Your task to perform on an android device: Go to Yahoo.com Image 0: 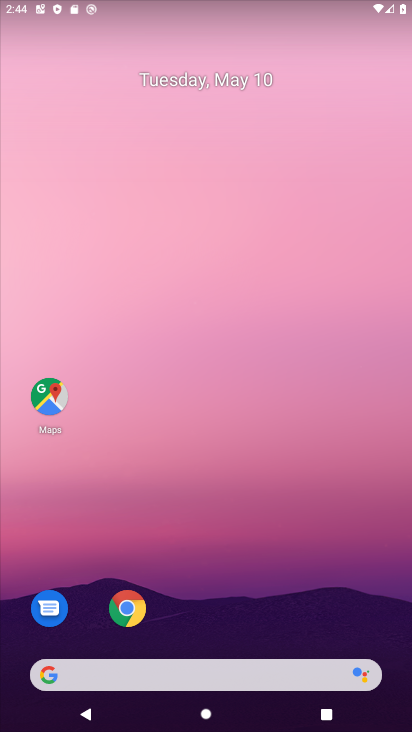
Step 0: drag from (218, 621) to (313, 1)
Your task to perform on an android device: Go to Yahoo.com Image 1: 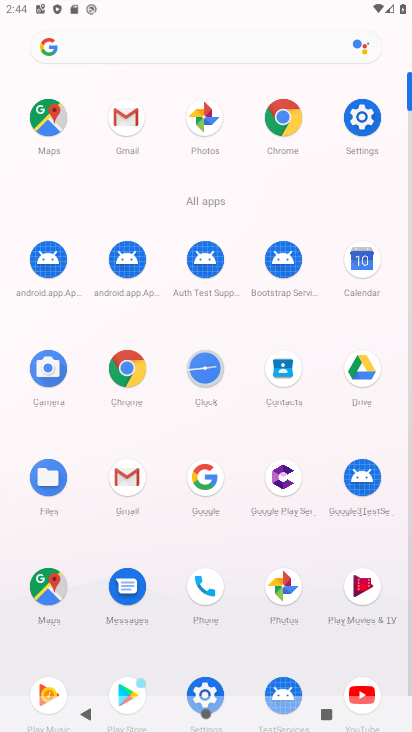
Step 1: click (297, 128)
Your task to perform on an android device: Go to Yahoo.com Image 2: 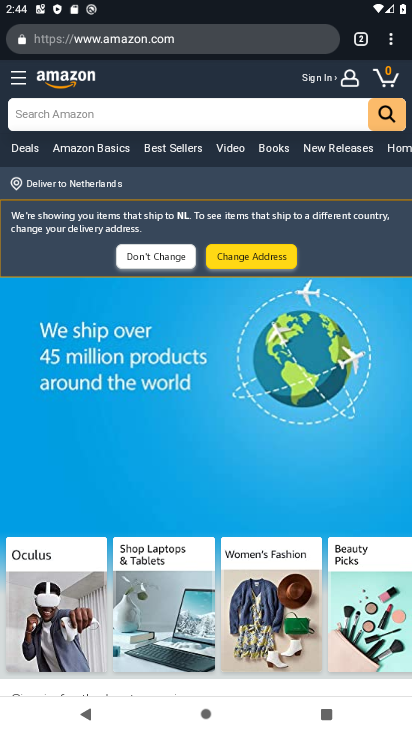
Step 2: click (256, 39)
Your task to perform on an android device: Go to Yahoo.com Image 3: 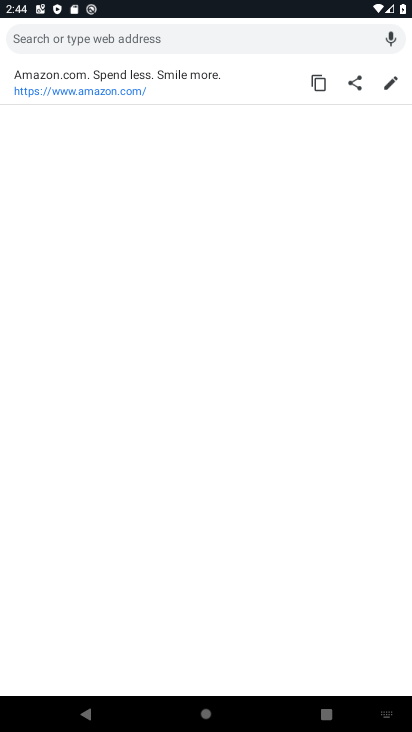
Step 3: type "yahoo.com"
Your task to perform on an android device: Go to Yahoo.com Image 4: 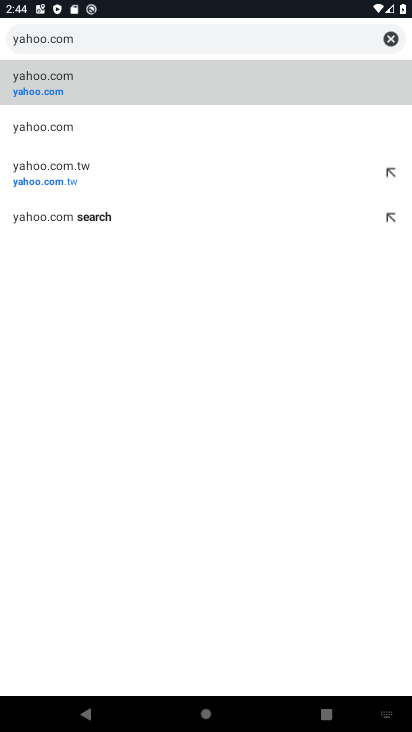
Step 4: click (30, 81)
Your task to perform on an android device: Go to Yahoo.com Image 5: 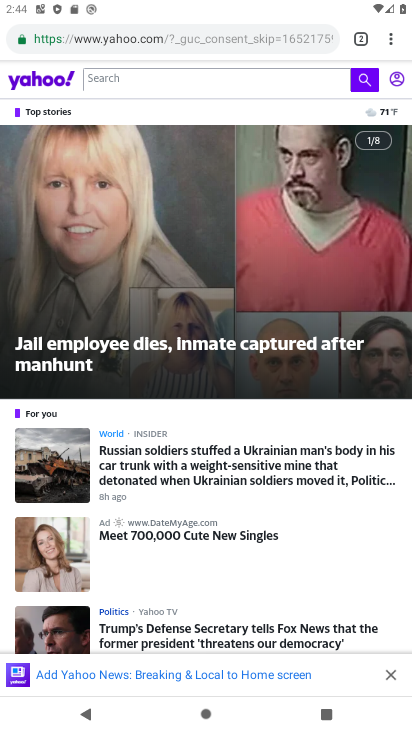
Step 5: task complete